Your task to perform on an android device: Search for flights from Zurich to Helsinki Image 0: 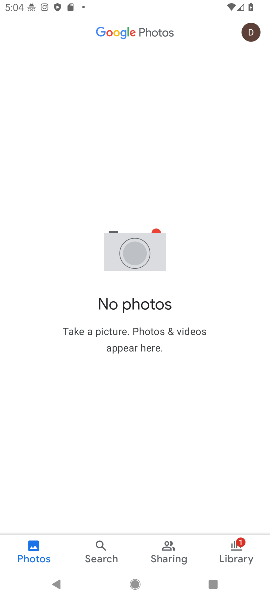
Step 0: press home button
Your task to perform on an android device: Search for flights from Zurich to Helsinki Image 1: 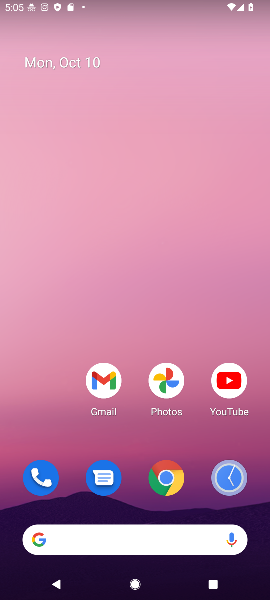
Step 1: click (169, 494)
Your task to perform on an android device: Search for flights from Zurich to Helsinki Image 2: 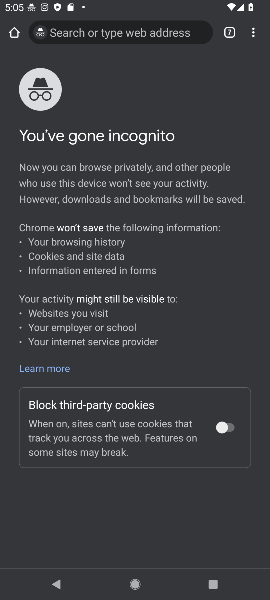
Step 2: click (136, 36)
Your task to perform on an android device: Search for flights from Zurich to Helsinki Image 3: 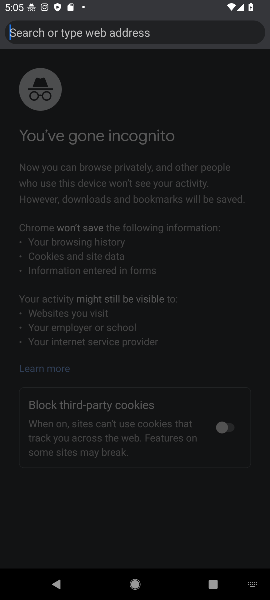
Step 3: type "Search for flights from Zurich to Helsinki"
Your task to perform on an android device: Search for flights from Zurich to Helsinki Image 4: 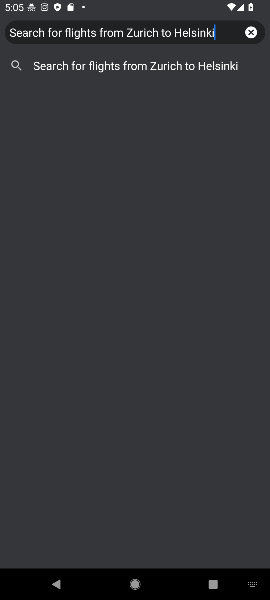
Step 4: click (185, 76)
Your task to perform on an android device: Search for flights from Zurich to Helsinki Image 5: 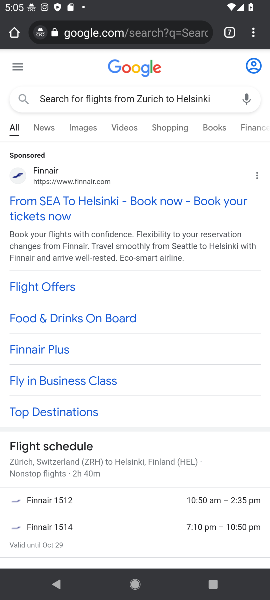
Step 5: drag from (93, 536) to (126, 131)
Your task to perform on an android device: Search for flights from Zurich to Helsinki Image 6: 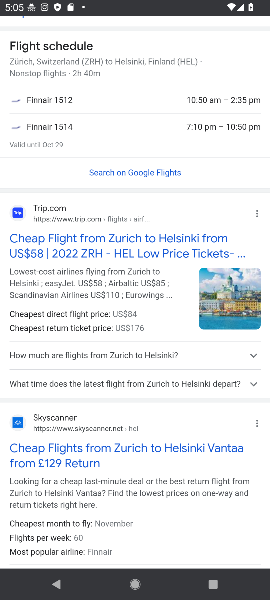
Step 6: click (116, 174)
Your task to perform on an android device: Search for flights from Zurich to Helsinki Image 7: 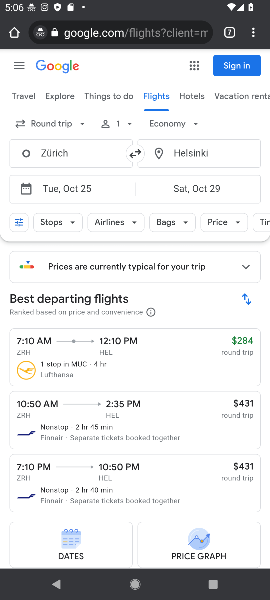
Step 7: task complete